Your task to perform on an android device: open wifi settings Image 0: 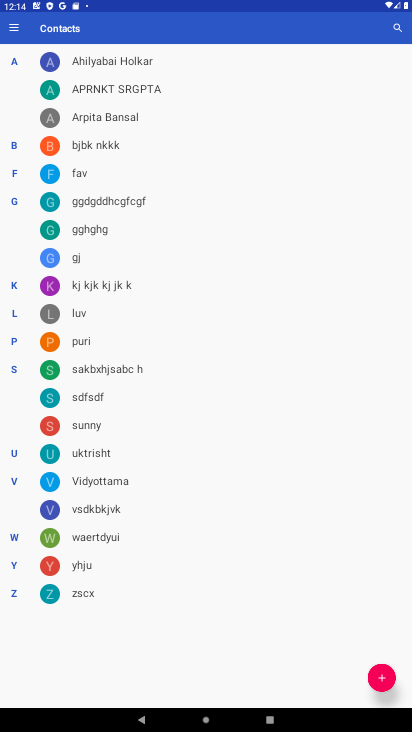
Step 0: press home button
Your task to perform on an android device: open wifi settings Image 1: 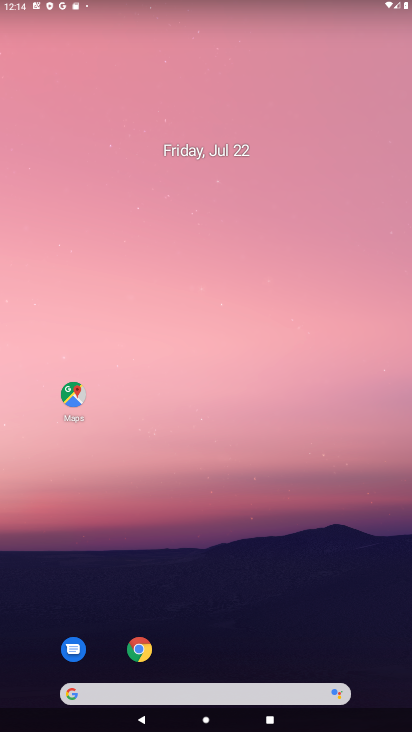
Step 1: drag from (228, 722) to (228, 186)
Your task to perform on an android device: open wifi settings Image 2: 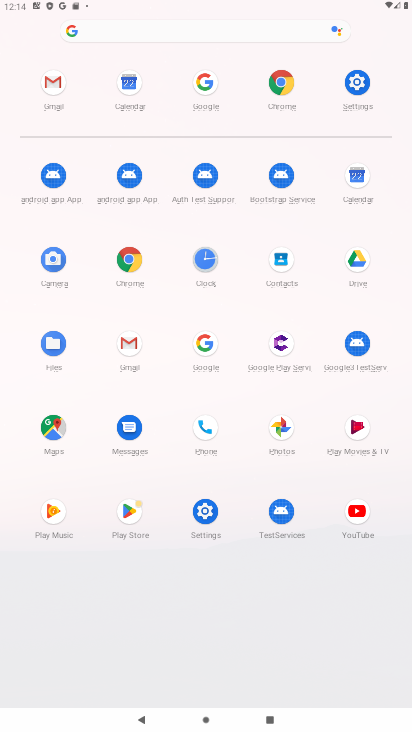
Step 2: click (358, 80)
Your task to perform on an android device: open wifi settings Image 3: 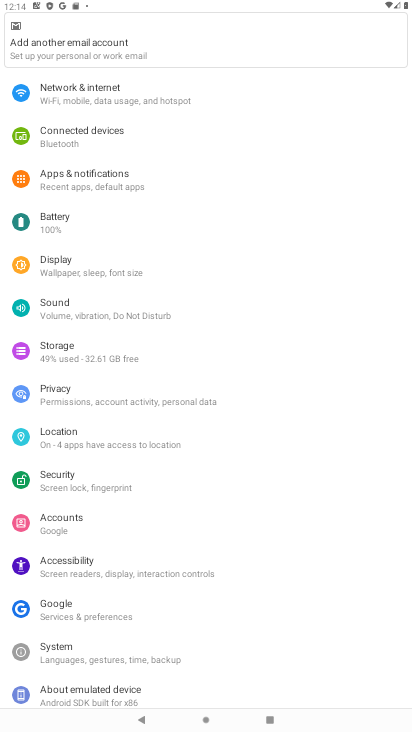
Step 3: click (74, 97)
Your task to perform on an android device: open wifi settings Image 4: 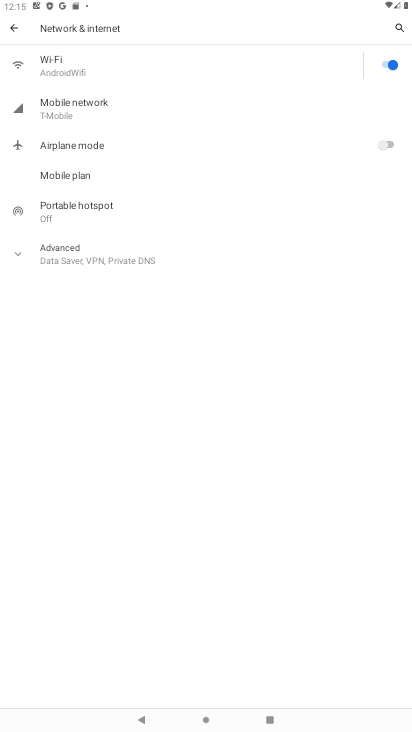
Step 4: click (56, 68)
Your task to perform on an android device: open wifi settings Image 5: 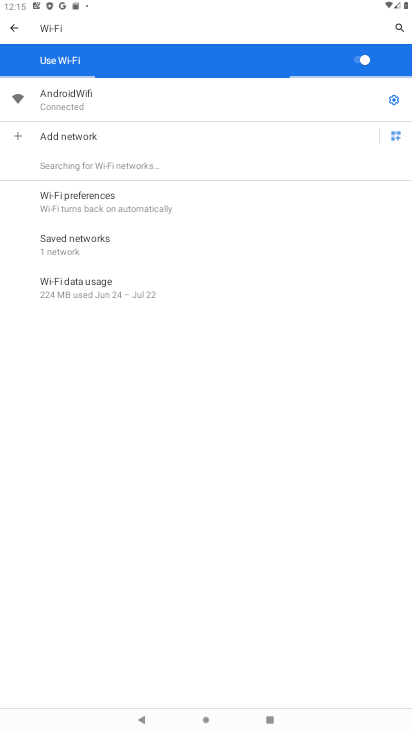
Step 5: task complete